Your task to perform on an android device: Open display settings Image 0: 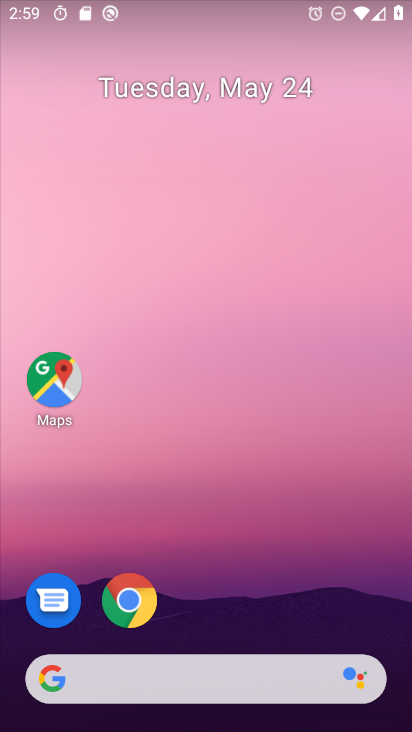
Step 0: drag from (312, 589) to (257, 206)
Your task to perform on an android device: Open display settings Image 1: 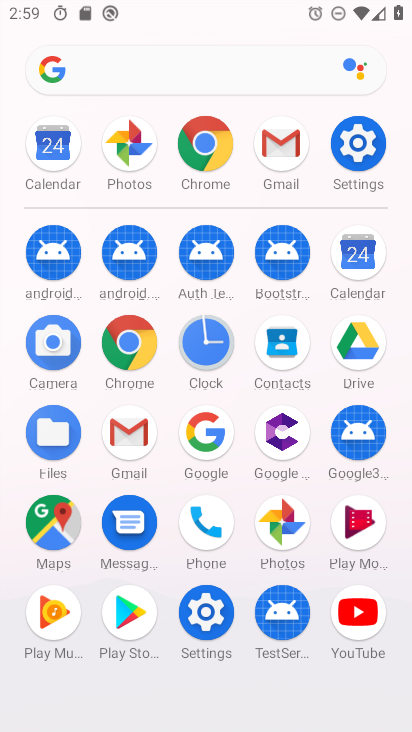
Step 1: click (361, 151)
Your task to perform on an android device: Open display settings Image 2: 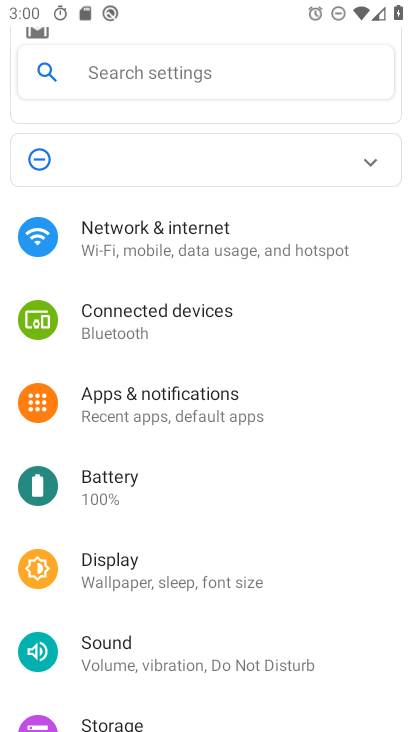
Step 2: click (165, 576)
Your task to perform on an android device: Open display settings Image 3: 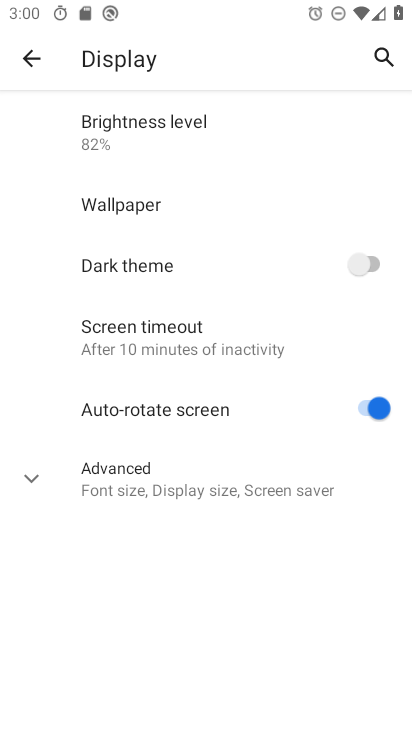
Step 3: click (238, 480)
Your task to perform on an android device: Open display settings Image 4: 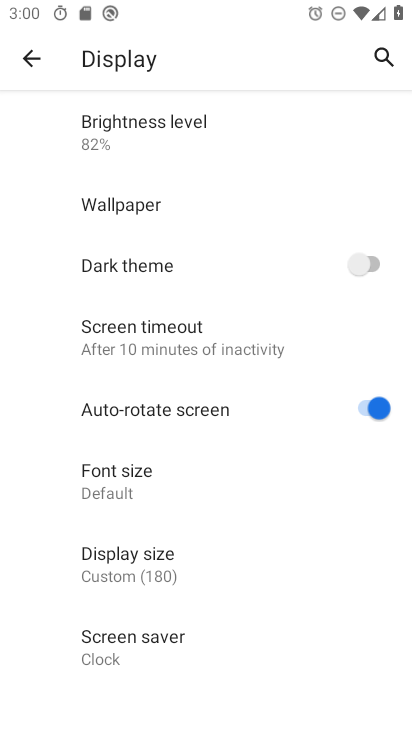
Step 4: task complete